Your task to perform on an android device: Go to ESPN.com Image 0: 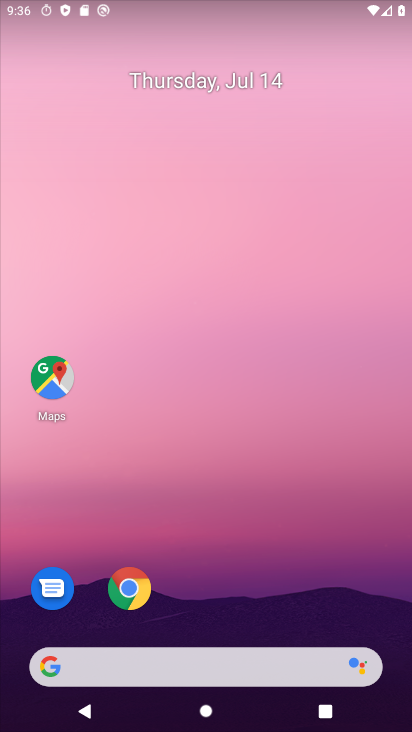
Step 0: click (126, 591)
Your task to perform on an android device: Go to ESPN.com Image 1: 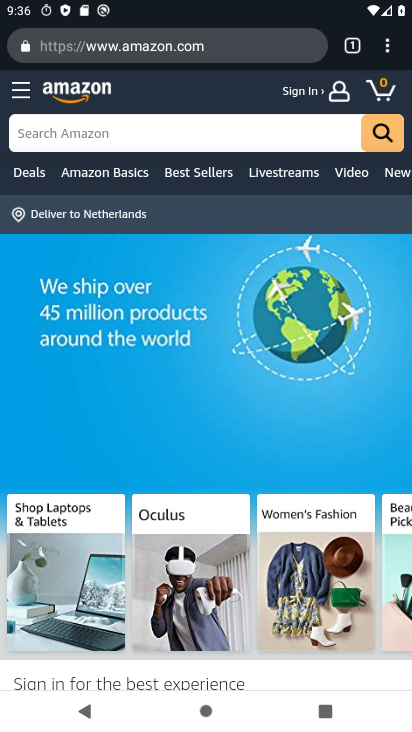
Step 1: click (360, 44)
Your task to perform on an android device: Go to ESPN.com Image 2: 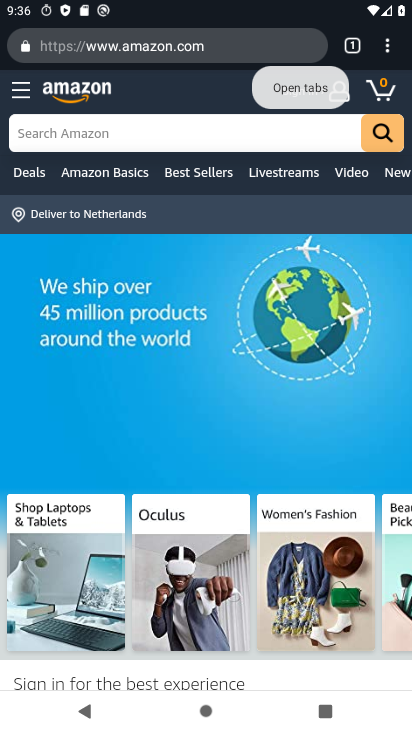
Step 2: click (360, 44)
Your task to perform on an android device: Go to ESPN.com Image 3: 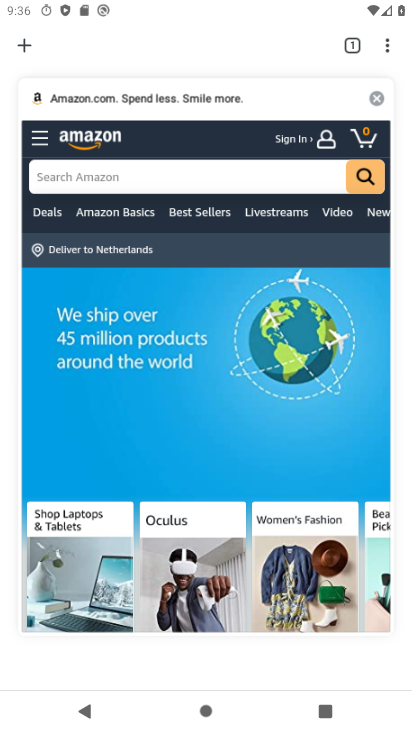
Step 3: click (372, 103)
Your task to perform on an android device: Go to ESPN.com Image 4: 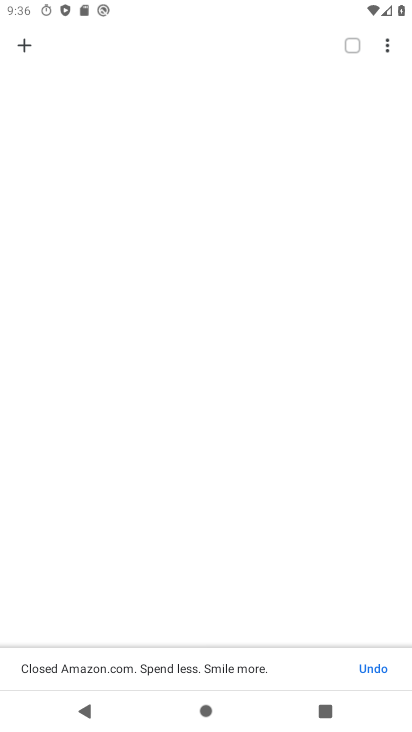
Step 4: click (26, 50)
Your task to perform on an android device: Go to ESPN.com Image 5: 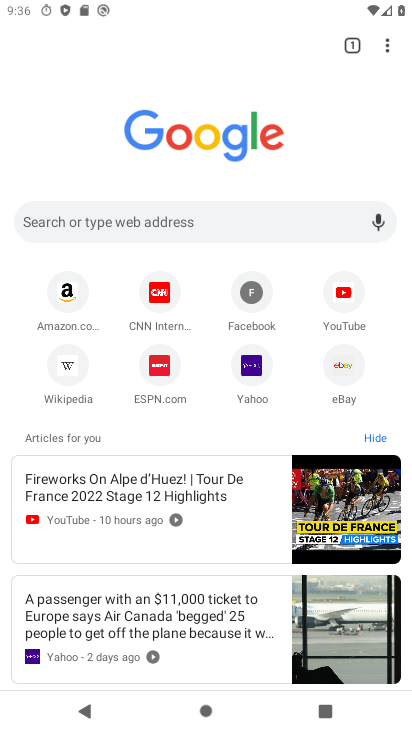
Step 5: click (150, 373)
Your task to perform on an android device: Go to ESPN.com Image 6: 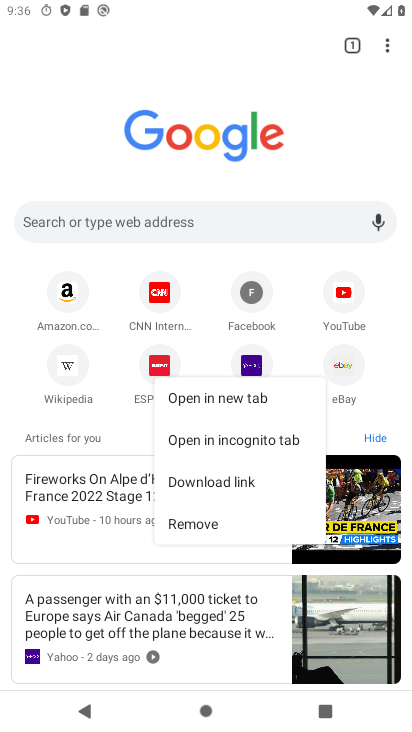
Step 6: click (155, 368)
Your task to perform on an android device: Go to ESPN.com Image 7: 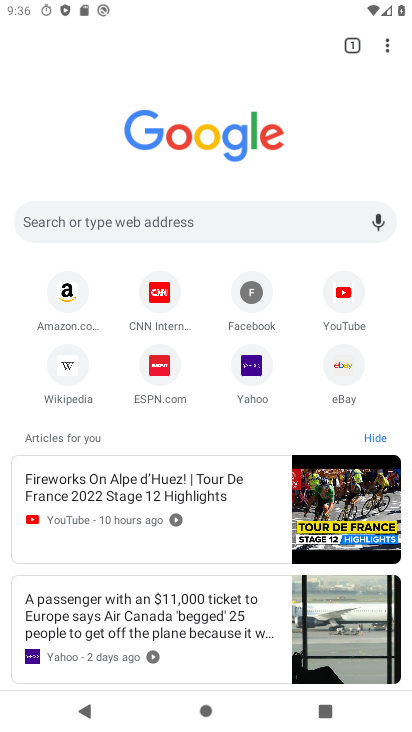
Step 7: click (154, 363)
Your task to perform on an android device: Go to ESPN.com Image 8: 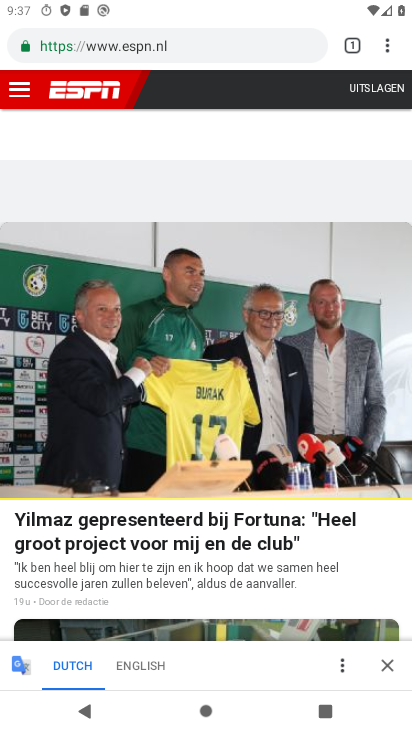
Step 8: task complete